Your task to perform on an android device: Open Wikipedia Image 0: 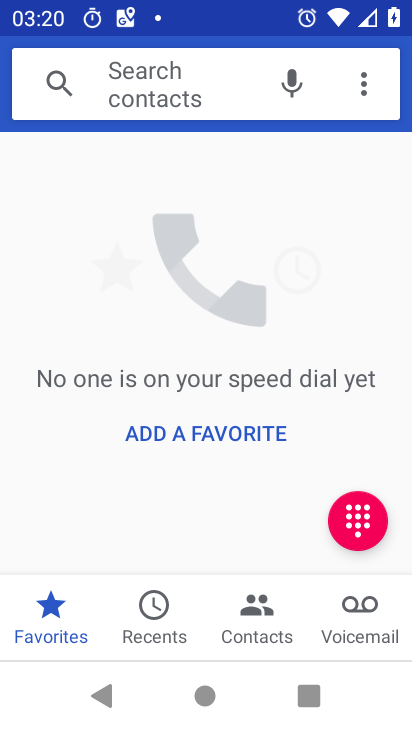
Step 0: press home button
Your task to perform on an android device: Open Wikipedia Image 1: 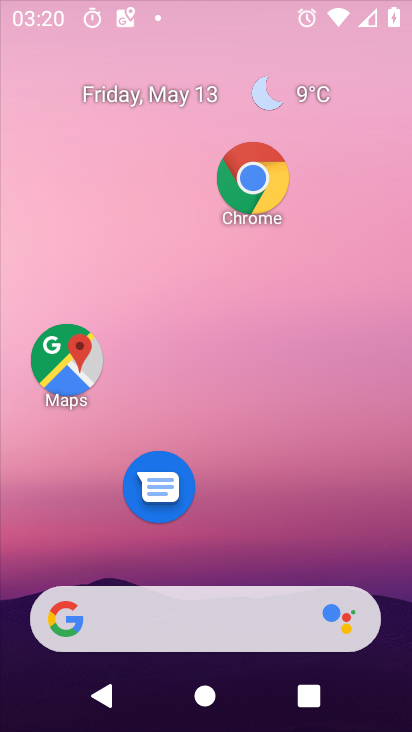
Step 1: click (227, 519)
Your task to perform on an android device: Open Wikipedia Image 2: 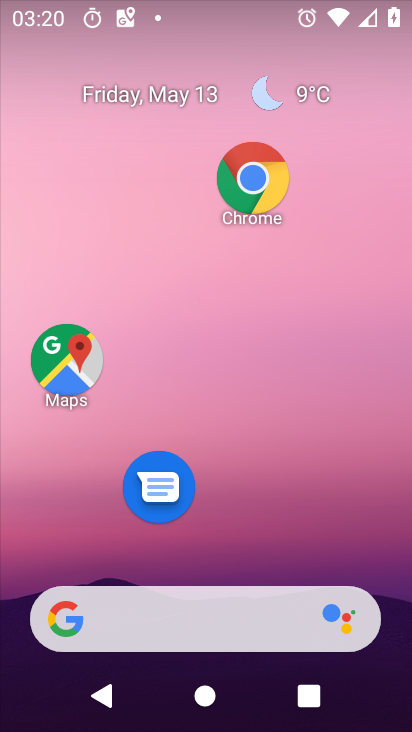
Step 2: click (249, 185)
Your task to perform on an android device: Open Wikipedia Image 3: 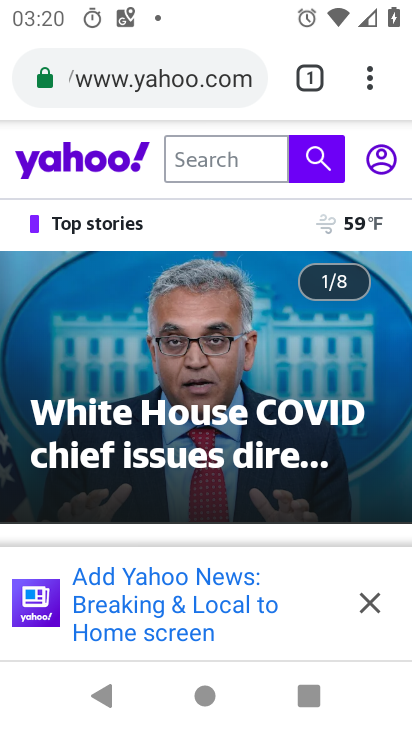
Step 3: press back button
Your task to perform on an android device: Open Wikipedia Image 4: 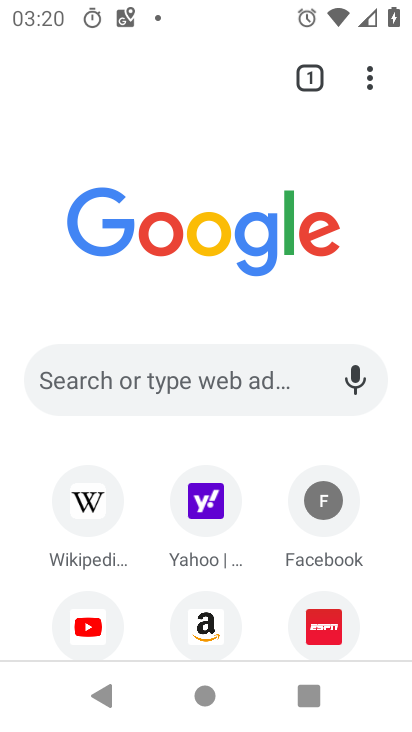
Step 4: click (94, 501)
Your task to perform on an android device: Open Wikipedia Image 5: 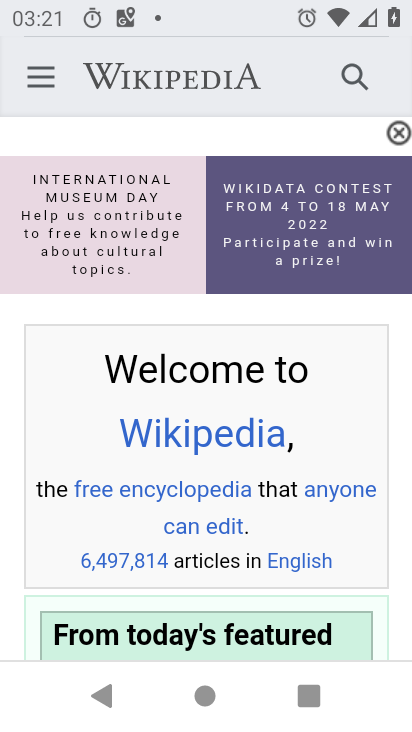
Step 5: task complete